Your task to perform on an android device: Open network settings Image 0: 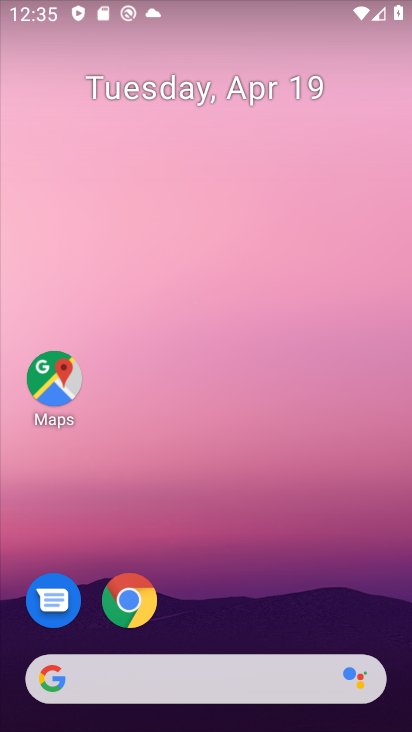
Step 0: drag from (218, 634) to (214, 14)
Your task to perform on an android device: Open network settings Image 1: 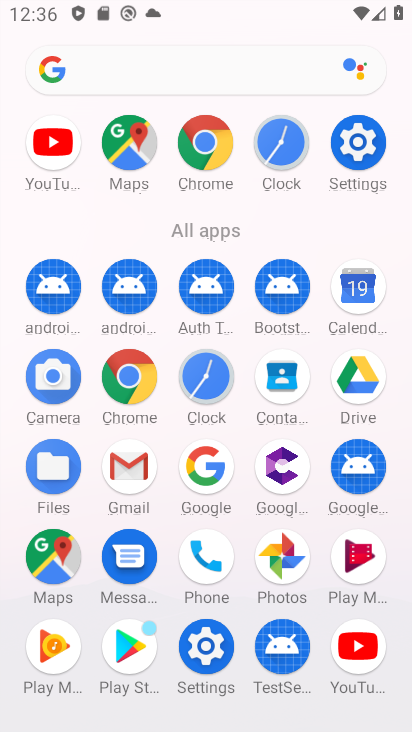
Step 1: click (196, 651)
Your task to perform on an android device: Open network settings Image 2: 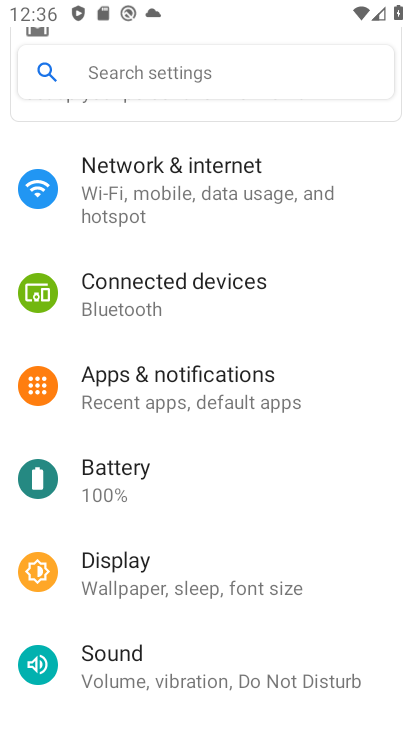
Step 2: click (223, 194)
Your task to perform on an android device: Open network settings Image 3: 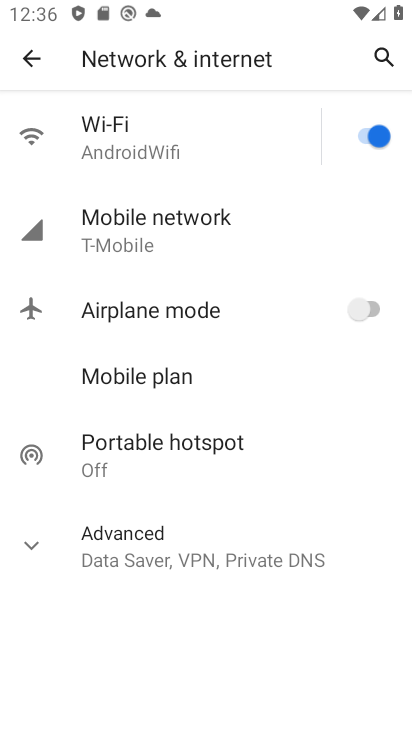
Step 3: click (154, 239)
Your task to perform on an android device: Open network settings Image 4: 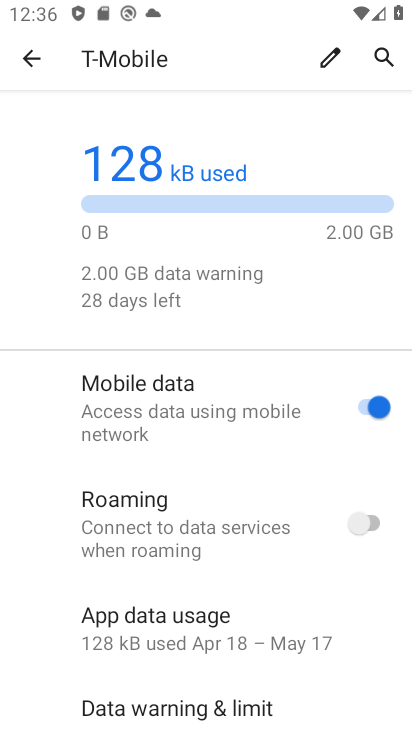
Step 4: task complete